Your task to perform on an android device: Is it going to rain this weekend? Image 0: 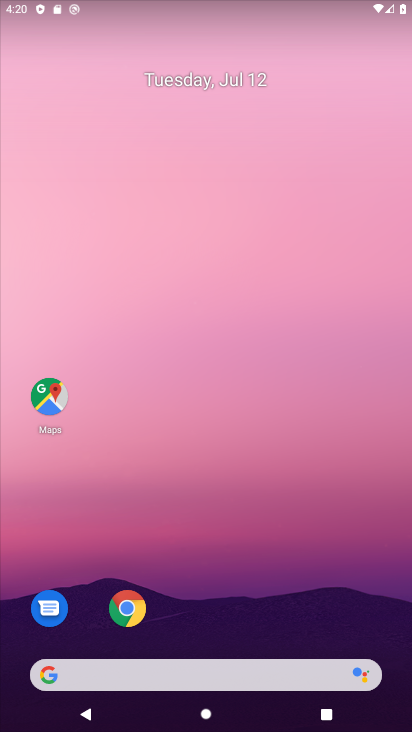
Step 0: click (167, 677)
Your task to perform on an android device: Is it going to rain this weekend? Image 1: 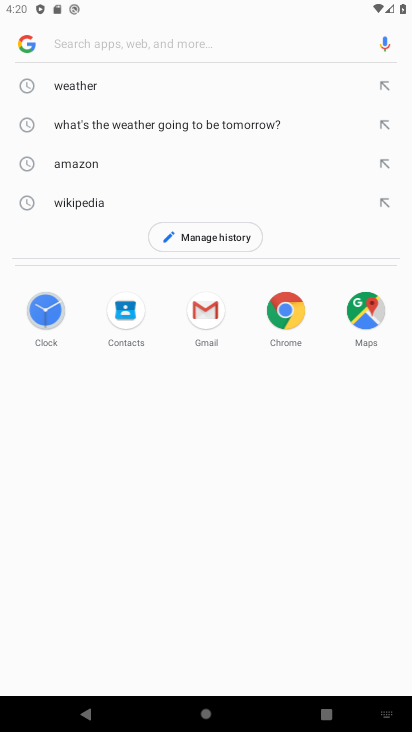
Step 1: click (101, 92)
Your task to perform on an android device: Is it going to rain this weekend? Image 2: 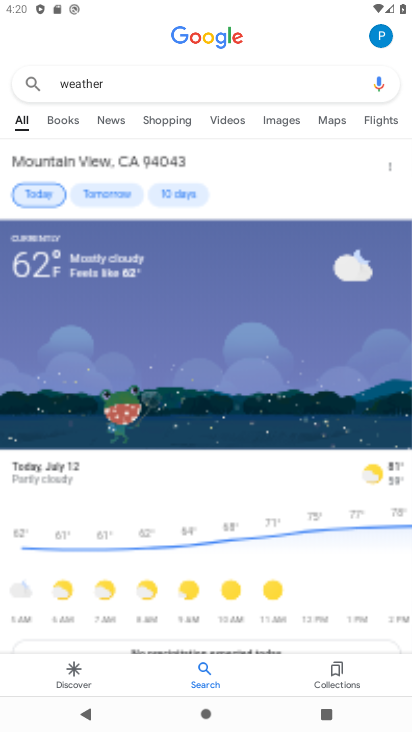
Step 2: click (162, 192)
Your task to perform on an android device: Is it going to rain this weekend? Image 3: 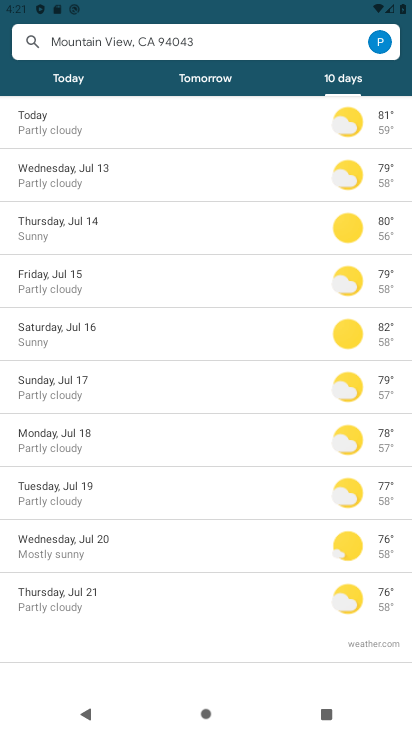
Step 3: click (157, 339)
Your task to perform on an android device: Is it going to rain this weekend? Image 4: 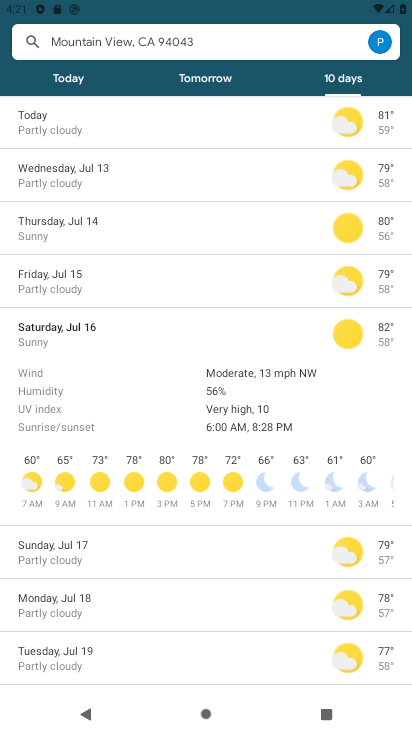
Step 4: task complete